Your task to perform on an android device: When is my next appointment? Image 0: 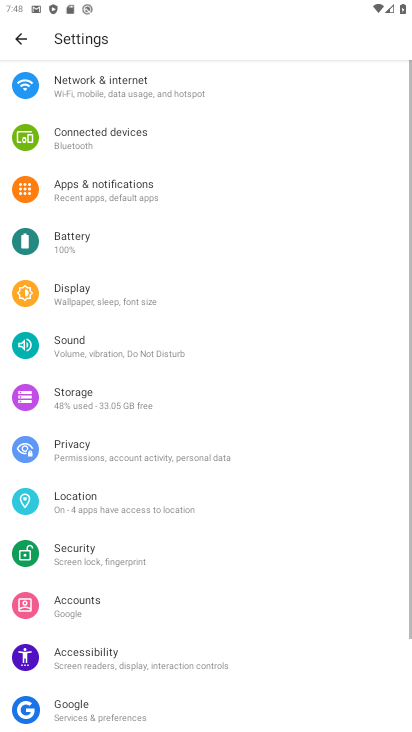
Step 0: press home button
Your task to perform on an android device: When is my next appointment? Image 1: 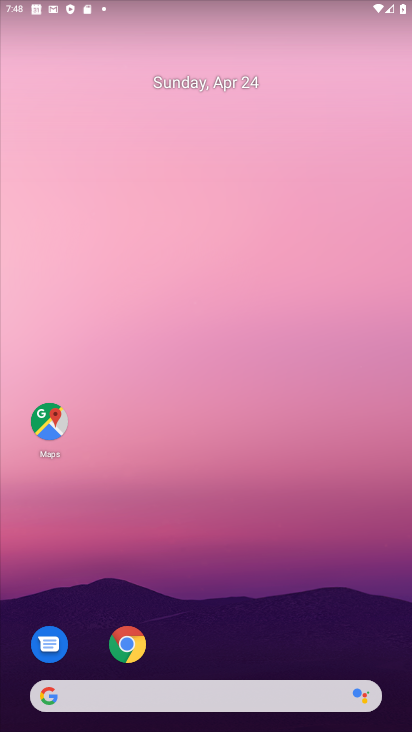
Step 1: drag from (224, 694) to (180, 195)
Your task to perform on an android device: When is my next appointment? Image 2: 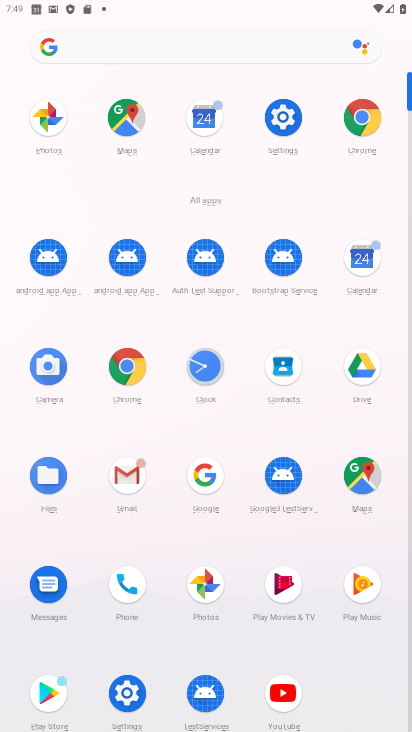
Step 2: click (358, 276)
Your task to perform on an android device: When is my next appointment? Image 3: 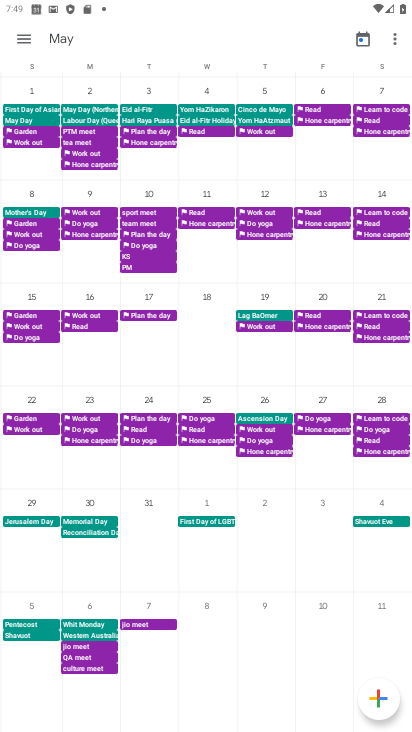
Step 3: click (27, 38)
Your task to perform on an android device: When is my next appointment? Image 4: 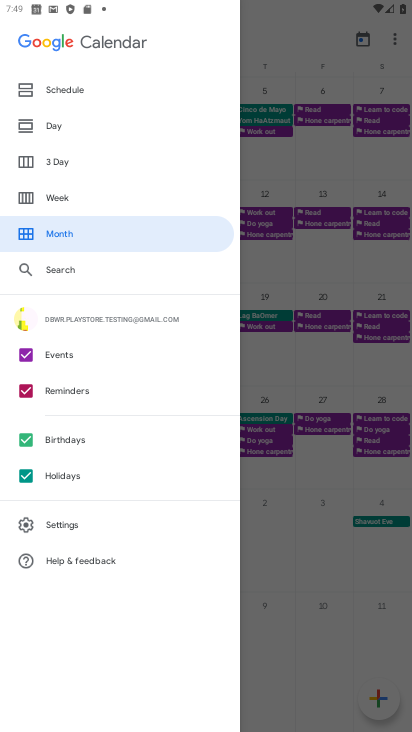
Step 4: click (78, 90)
Your task to perform on an android device: When is my next appointment? Image 5: 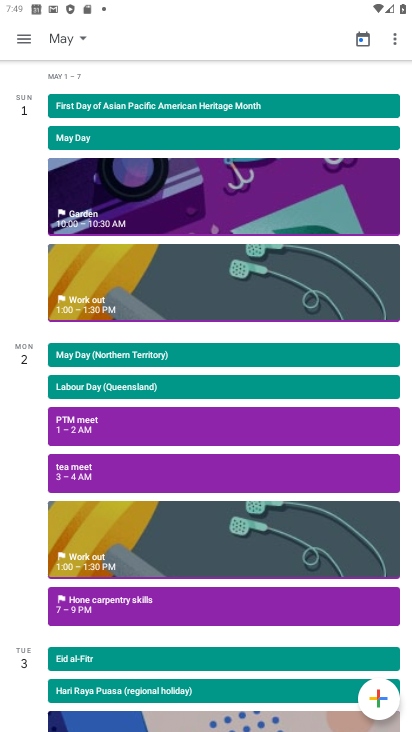
Step 5: click (79, 40)
Your task to perform on an android device: When is my next appointment? Image 6: 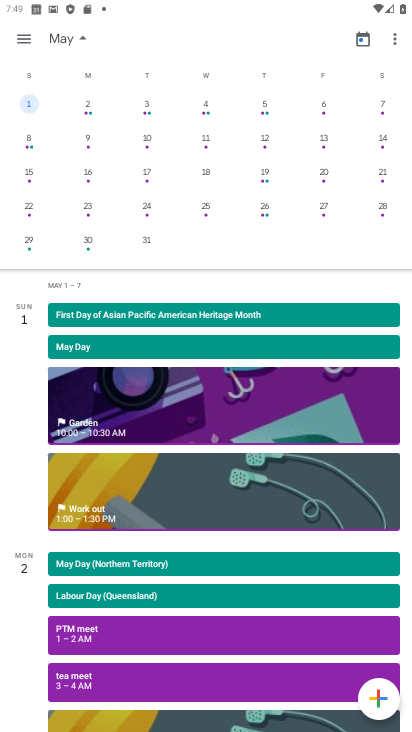
Step 6: drag from (35, 171) to (408, 190)
Your task to perform on an android device: When is my next appointment? Image 7: 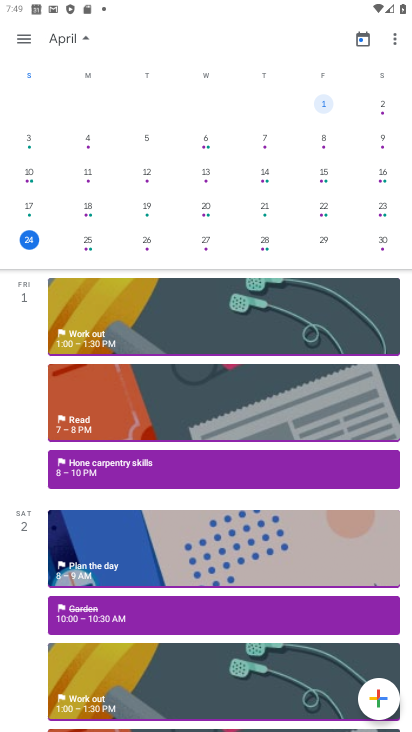
Step 7: click (78, 35)
Your task to perform on an android device: When is my next appointment? Image 8: 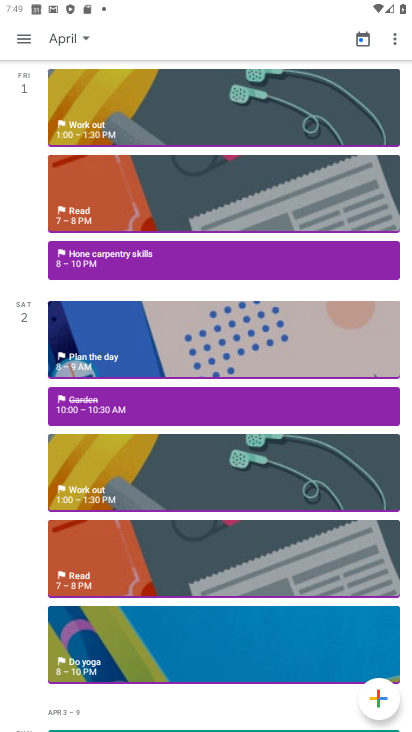
Step 8: task complete